Your task to perform on an android device: set default search engine in the chrome app Image 0: 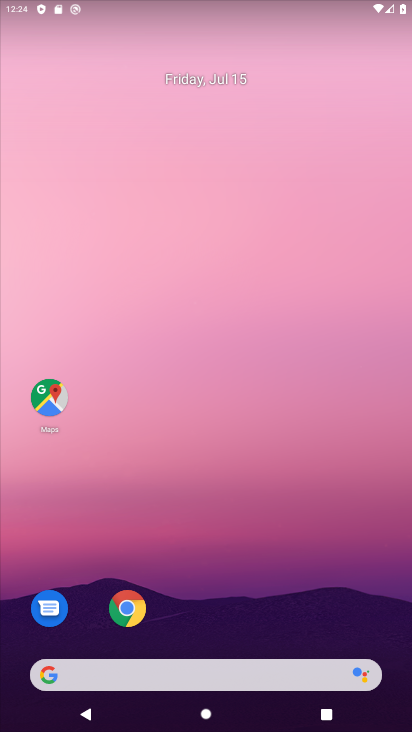
Step 0: drag from (283, 610) to (195, 14)
Your task to perform on an android device: set default search engine in the chrome app Image 1: 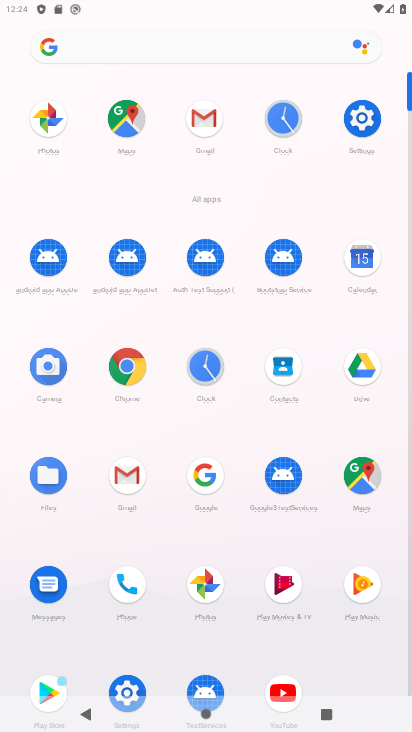
Step 1: click (139, 376)
Your task to perform on an android device: set default search engine in the chrome app Image 2: 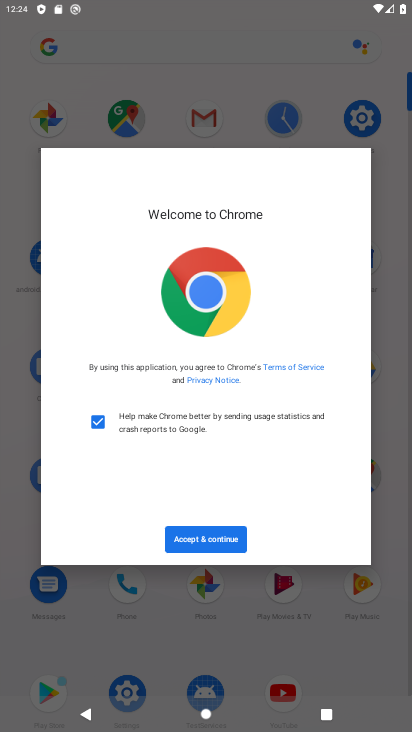
Step 2: click (227, 531)
Your task to perform on an android device: set default search engine in the chrome app Image 3: 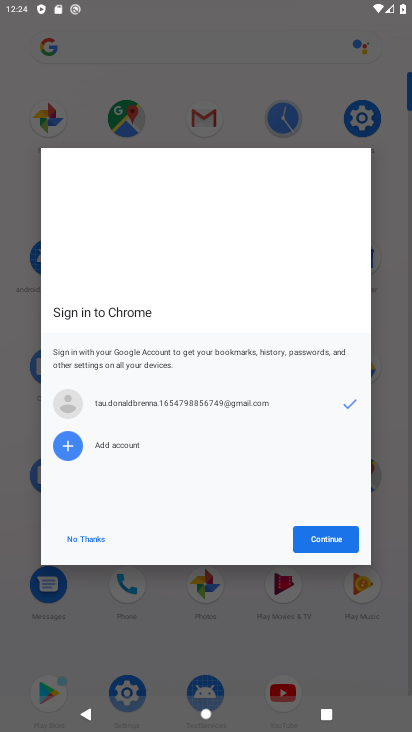
Step 3: click (327, 531)
Your task to perform on an android device: set default search engine in the chrome app Image 4: 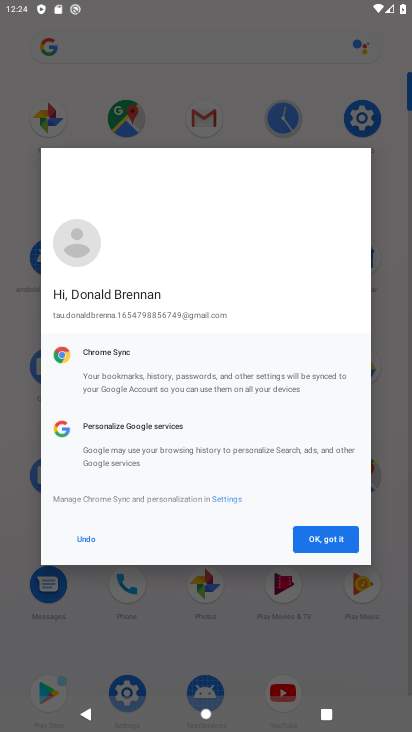
Step 4: click (327, 531)
Your task to perform on an android device: set default search engine in the chrome app Image 5: 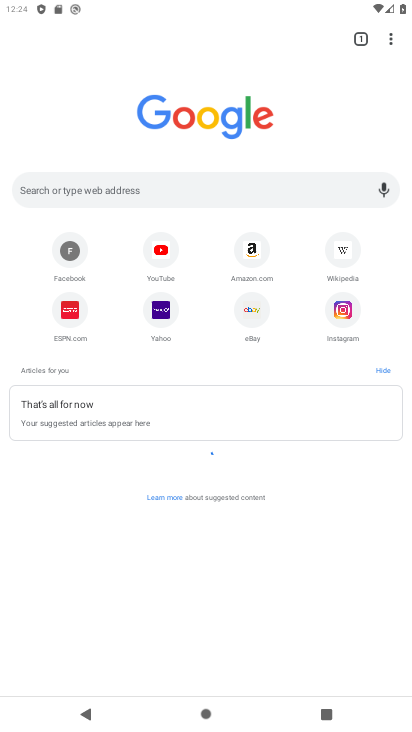
Step 5: drag from (388, 40) to (271, 322)
Your task to perform on an android device: set default search engine in the chrome app Image 6: 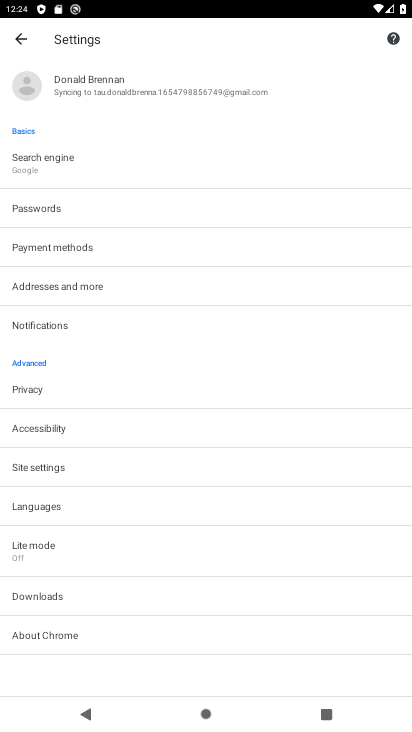
Step 6: click (40, 151)
Your task to perform on an android device: set default search engine in the chrome app Image 7: 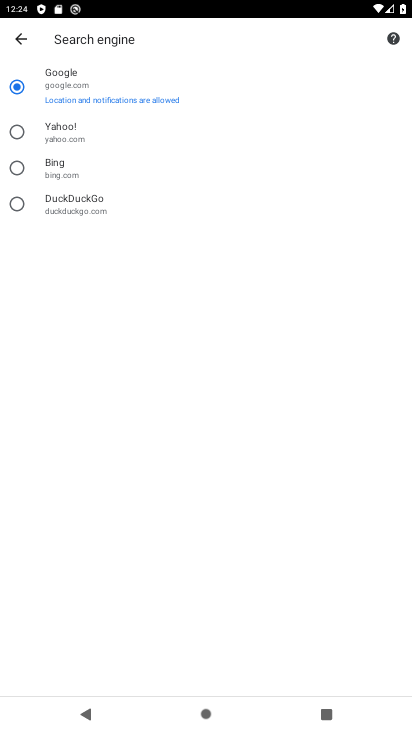
Step 7: task complete